Your task to perform on an android device: Search for the best gaming monitor on Best Buy Image 0: 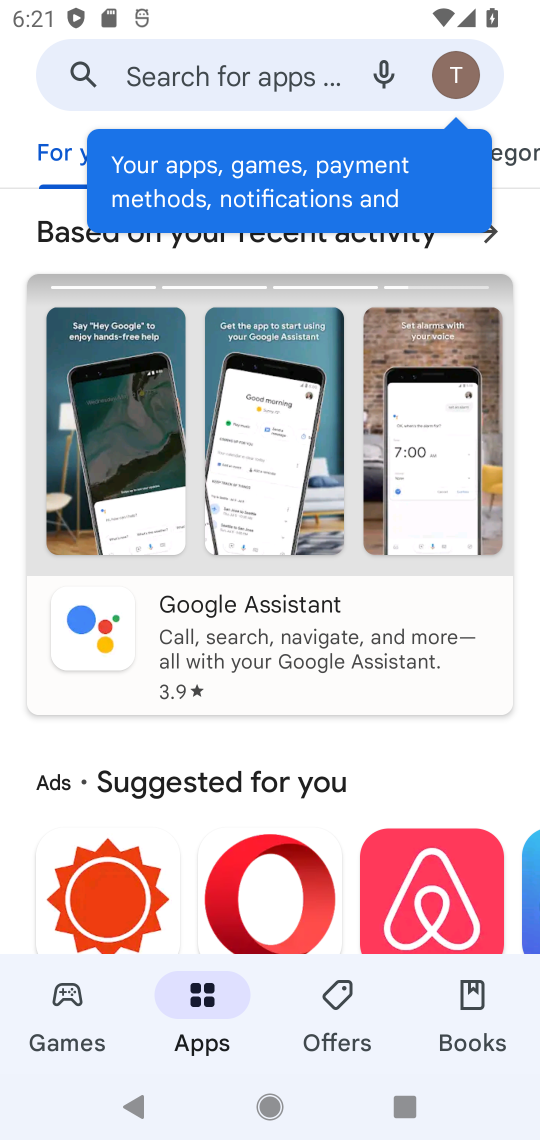
Step 0: press home button
Your task to perform on an android device: Search for the best gaming monitor on Best Buy Image 1: 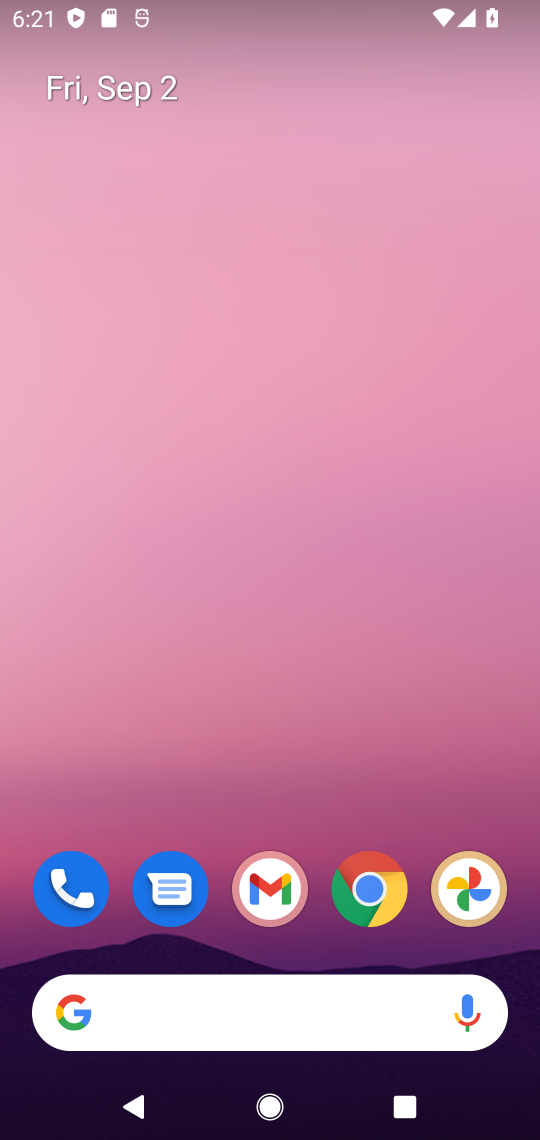
Step 1: click (252, 989)
Your task to perform on an android device: Search for the best gaming monitor on Best Buy Image 2: 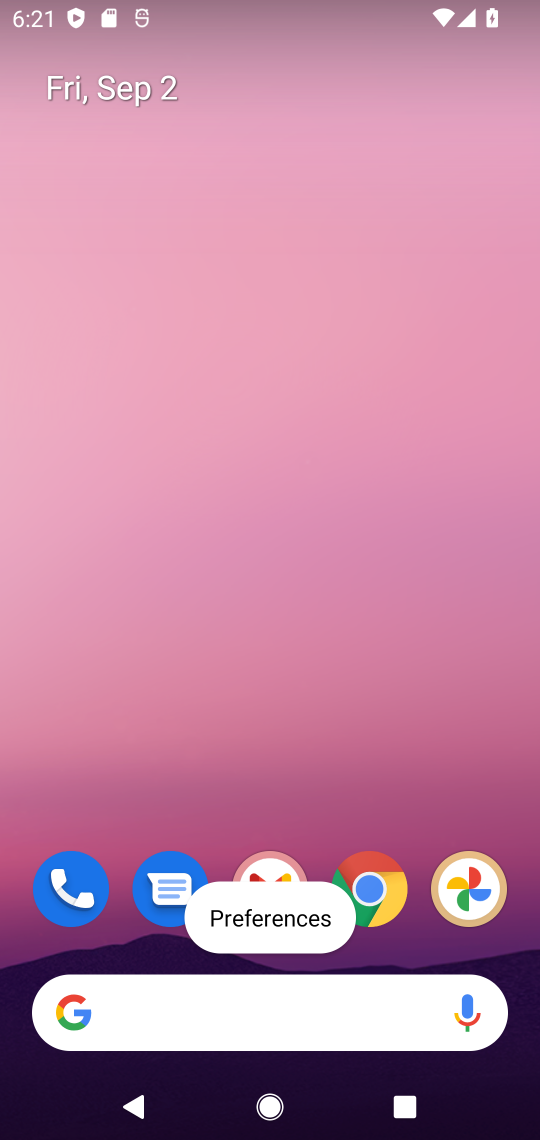
Step 2: click (253, 1012)
Your task to perform on an android device: Search for the best gaming monitor on Best Buy Image 3: 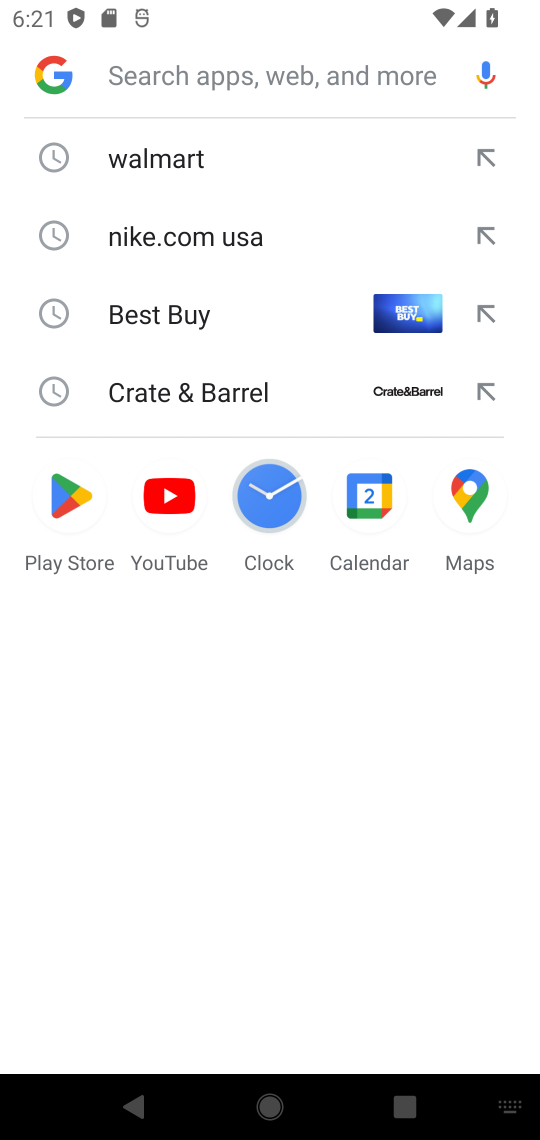
Step 3: click (229, 324)
Your task to perform on an android device: Search for the best gaming monitor on Best Buy Image 4: 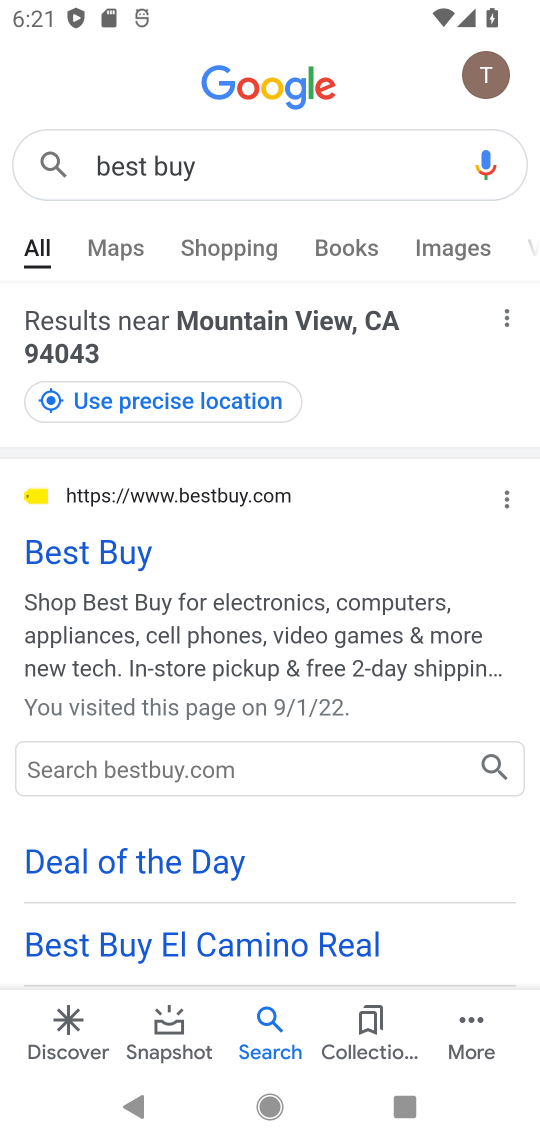
Step 4: click (114, 555)
Your task to perform on an android device: Search for the best gaming monitor on Best Buy Image 5: 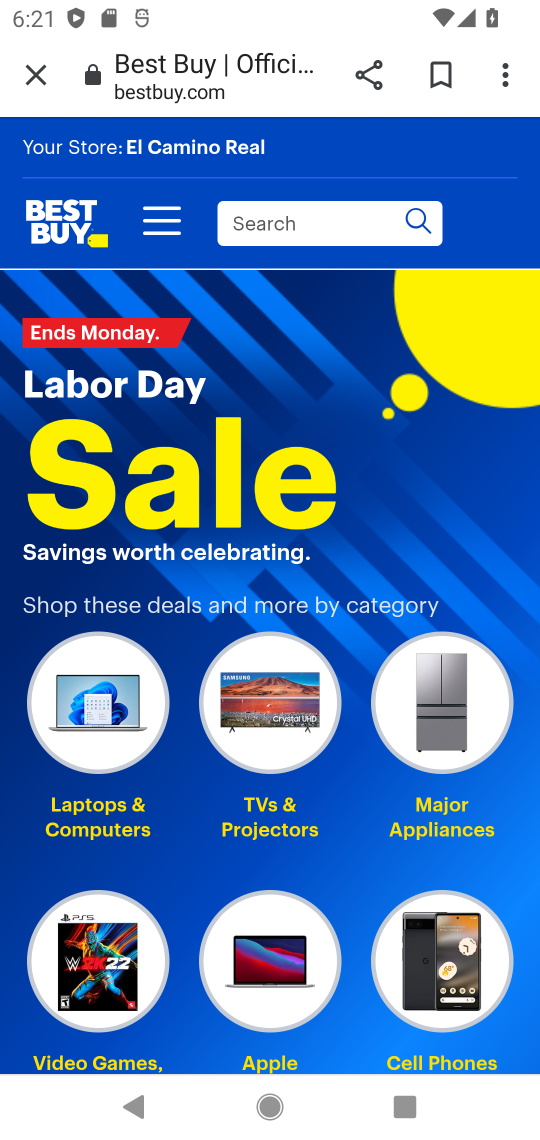
Step 5: click (279, 219)
Your task to perform on an android device: Search for the best gaming monitor on Best Buy Image 6: 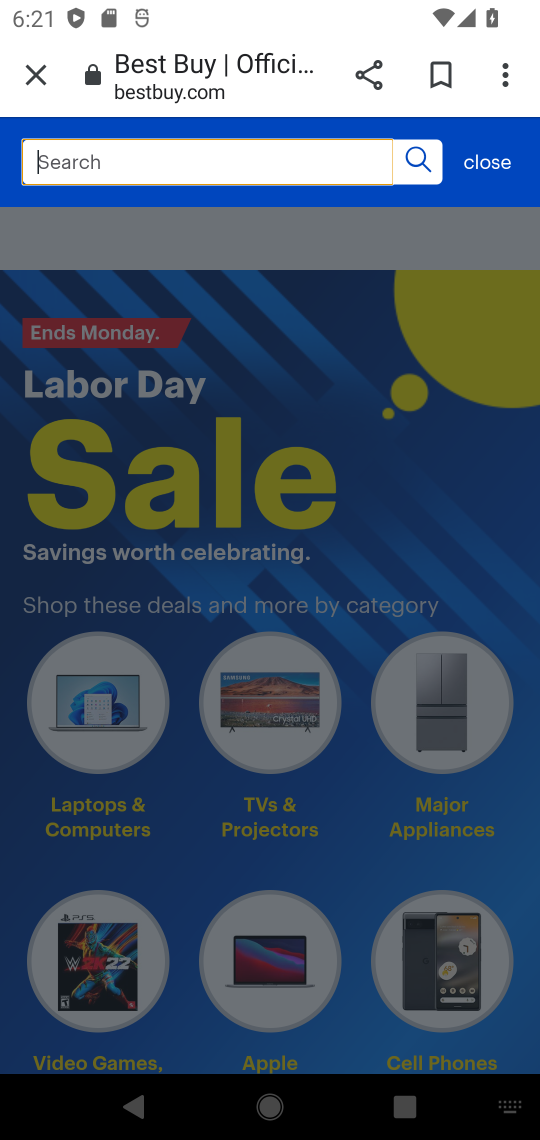
Step 6: type "best gaming monitor"
Your task to perform on an android device: Search for the best gaming monitor on Best Buy Image 7: 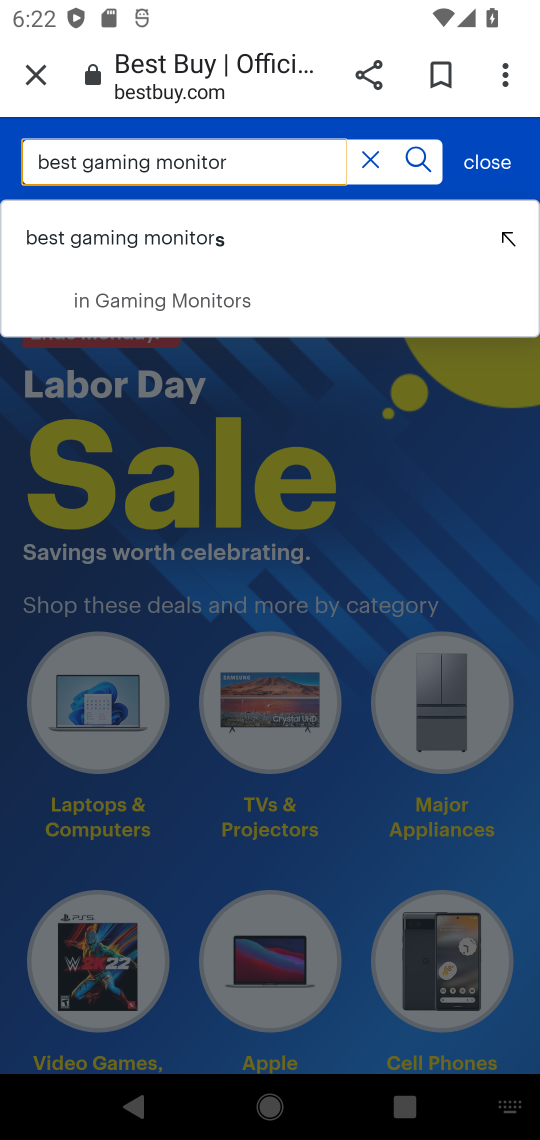
Step 7: click (296, 302)
Your task to perform on an android device: Search for the best gaming monitor on Best Buy Image 8: 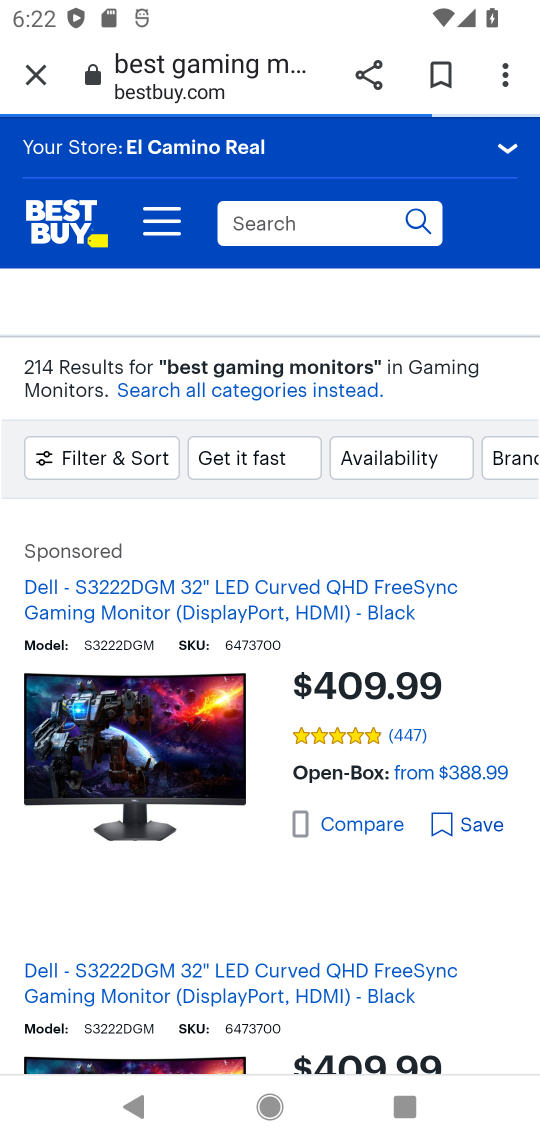
Step 8: task complete